Your task to perform on an android device: Open Yahoo.com Image 0: 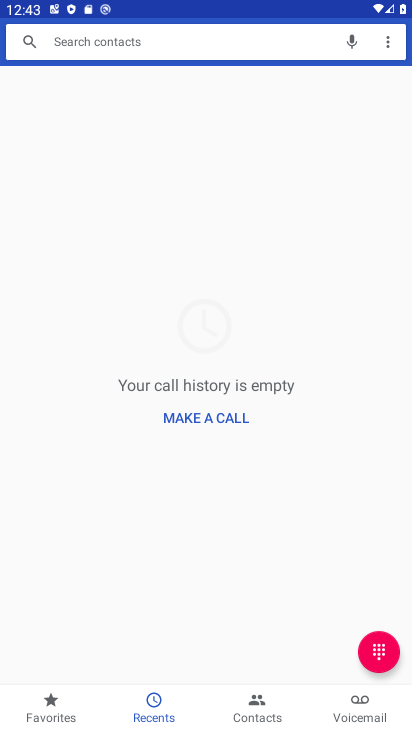
Step 0: press home button
Your task to perform on an android device: Open Yahoo.com Image 1: 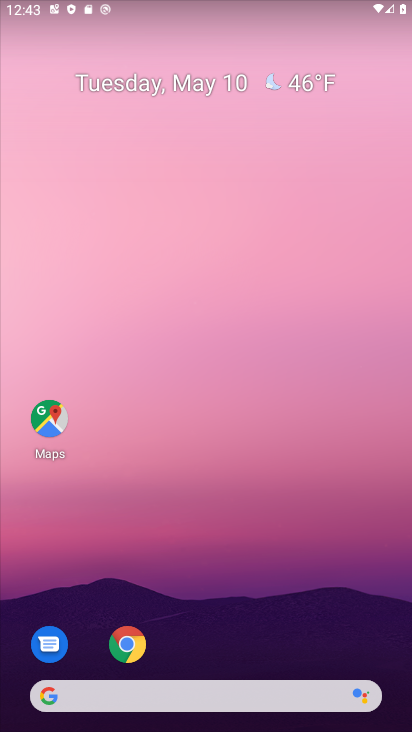
Step 1: click (134, 641)
Your task to perform on an android device: Open Yahoo.com Image 2: 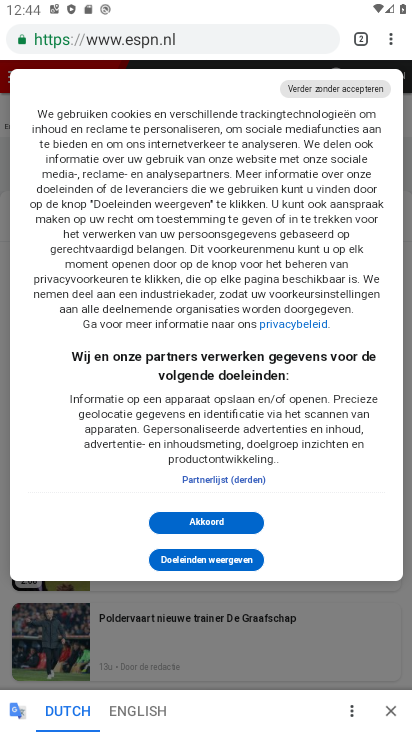
Step 2: click (356, 34)
Your task to perform on an android device: Open Yahoo.com Image 3: 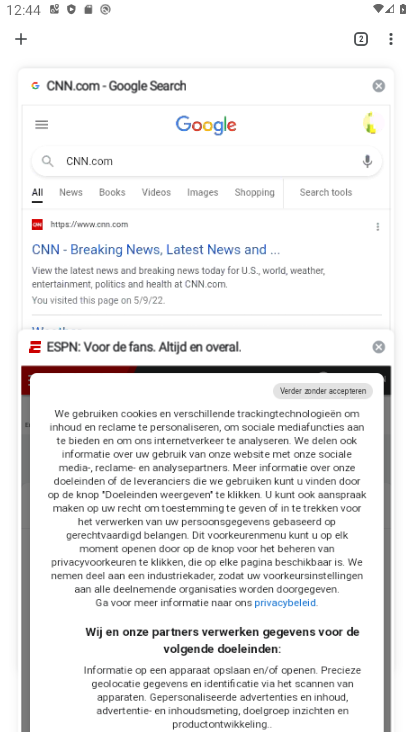
Step 3: click (16, 45)
Your task to perform on an android device: Open Yahoo.com Image 4: 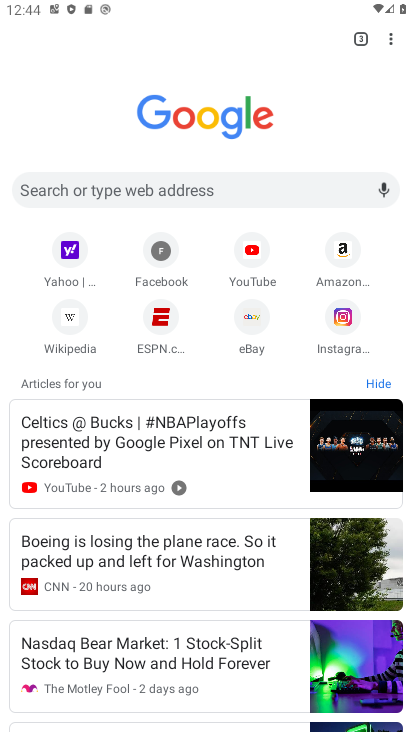
Step 4: click (176, 200)
Your task to perform on an android device: Open Yahoo.com Image 5: 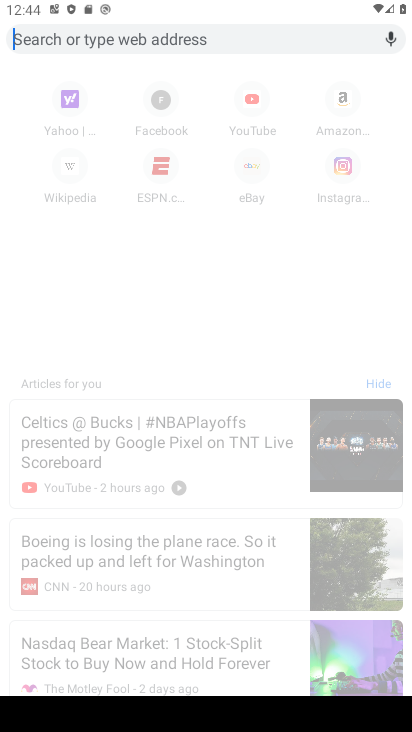
Step 5: type "Yahoo.com"
Your task to perform on an android device: Open Yahoo.com Image 6: 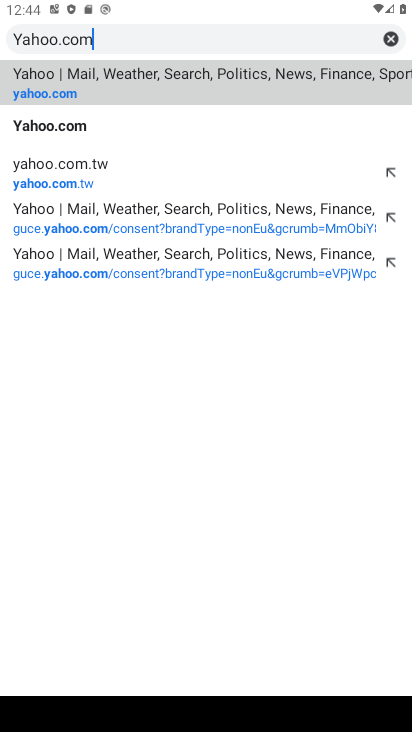
Step 6: type ""
Your task to perform on an android device: Open Yahoo.com Image 7: 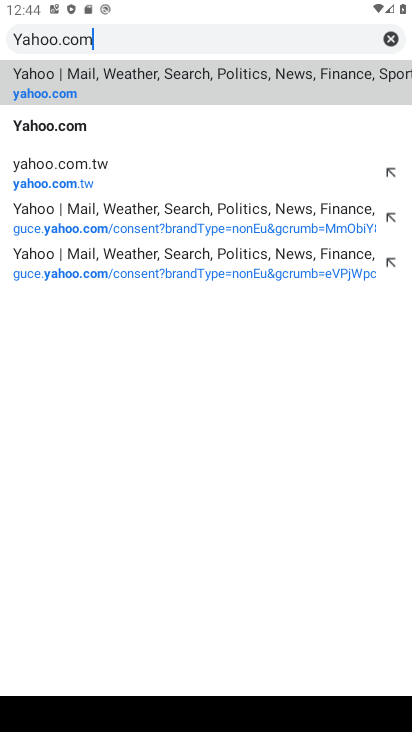
Step 7: click (145, 97)
Your task to perform on an android device: Open Yahoo.com Image 8: 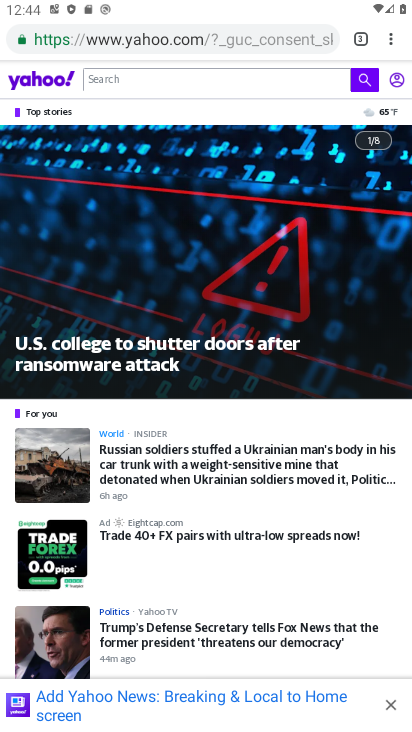
Step 8: task complete